Your task to perform on an android device: turn on airplane mode Image 0: 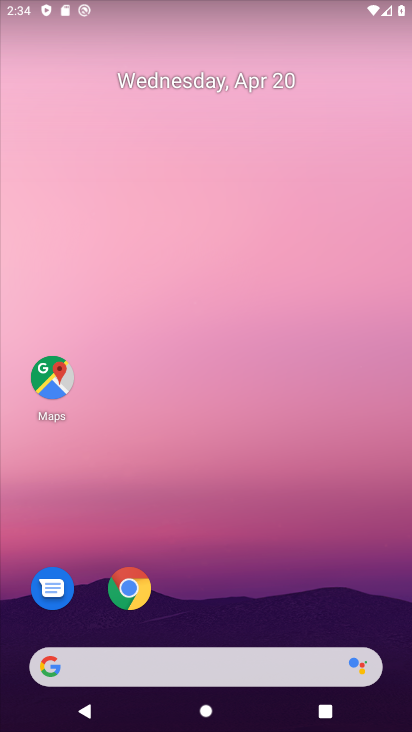
Step 0: drag from (220, 606) to (179, 36)
Your task to perform on an android device: turn on airplane mode Image 1: 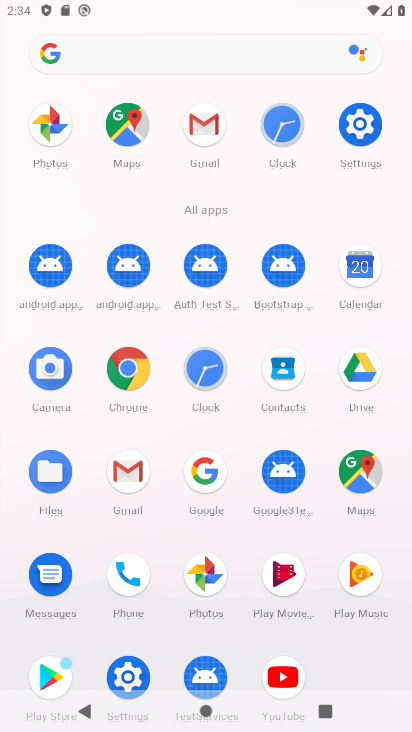
Step 1: click (364, 128)
Your task to perform on an android device: turn on airplane mode Image 2: 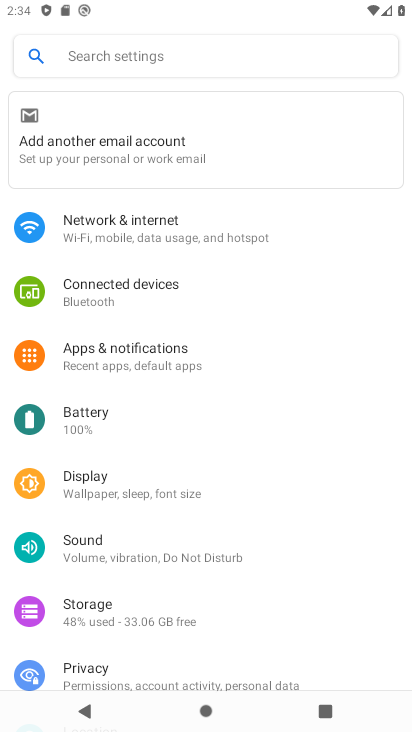
Step 2: click (198, 220)
Your task to perform on an android device: turn on airplane mode Image 3: 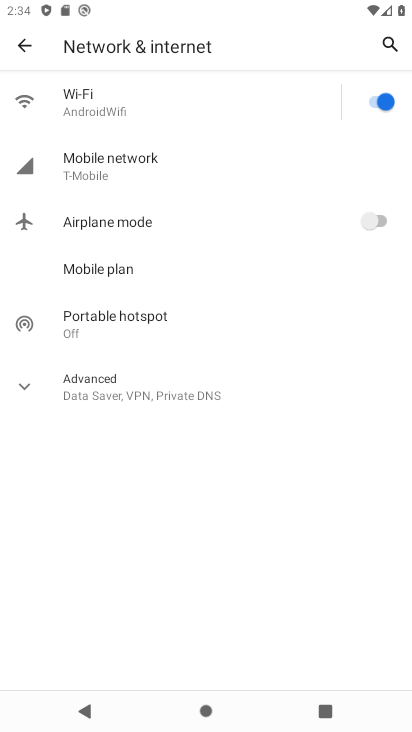
Step 3: click (381, 217)
Your task to perform on an android device: turn on airplane mode Image 4: 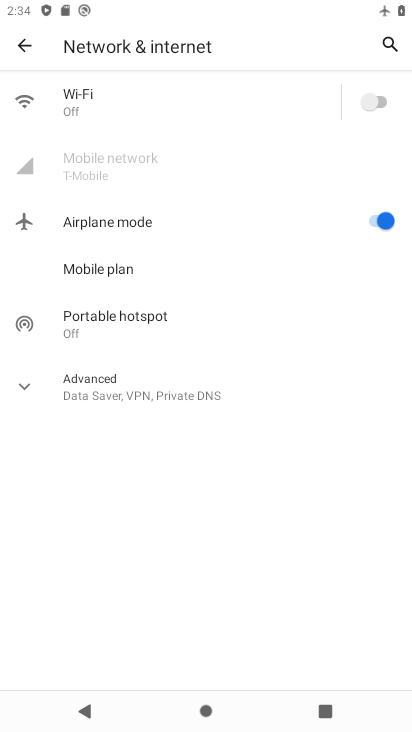
Step 4: task complete